Your task to perform on an android device: What's on my calendar today? Image 0: 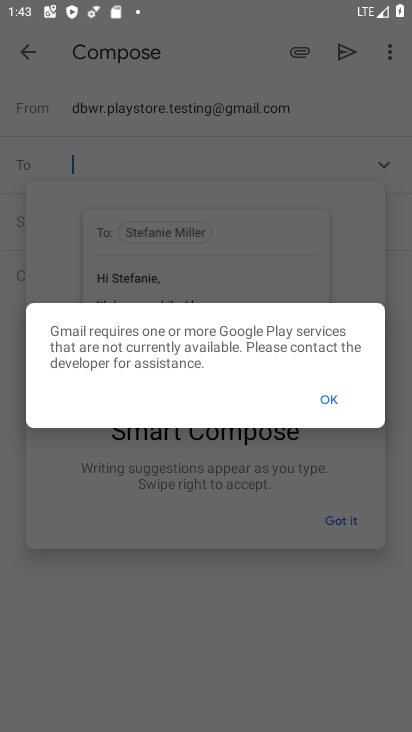
Step 0: press home button
Your task to perform on an android device: What's on my calendar today? Image 1: 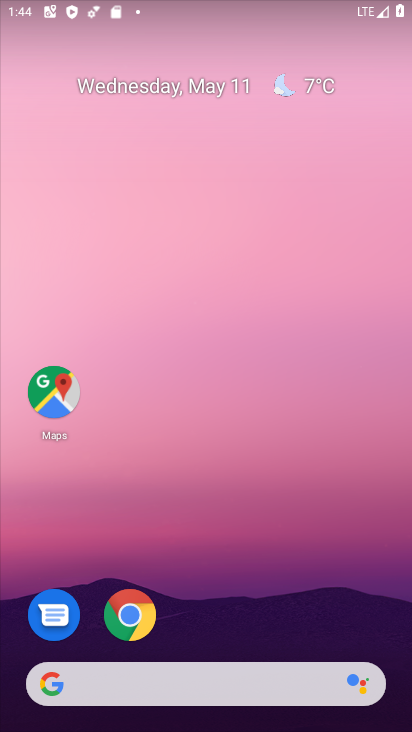
Step 1: drag from (263, 629) to (307, 163)
Your task to perform on an android device: What's on my calendar today? Image 2: 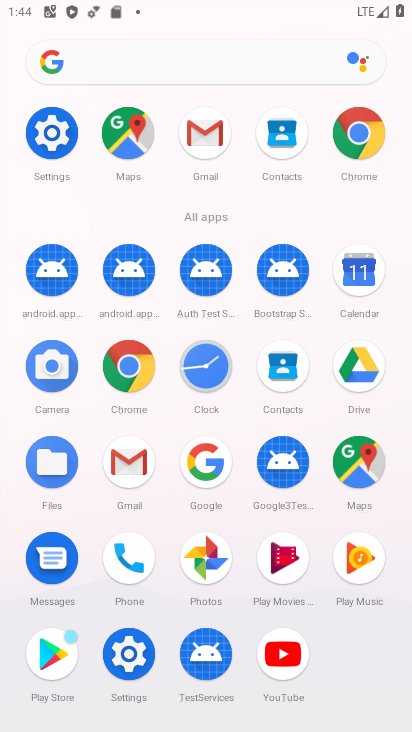
Step 2: click (356, 269)
Your task to perform on an android device: What's on my calendar today? Image 3: 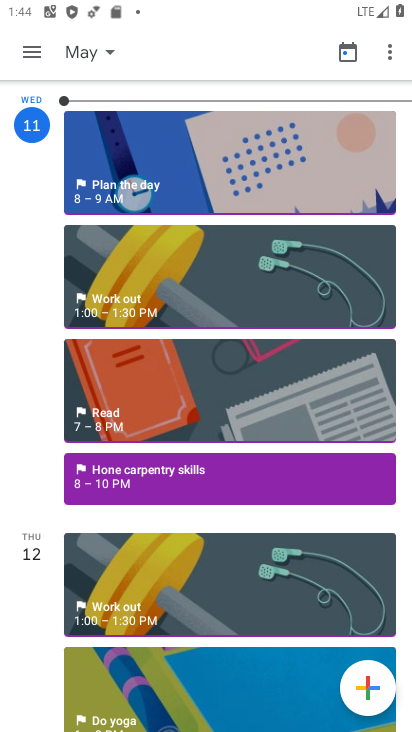
Step 3: task complete